Your task to perform on an android device: Search for Mexican restaurants on Maps Image 0: 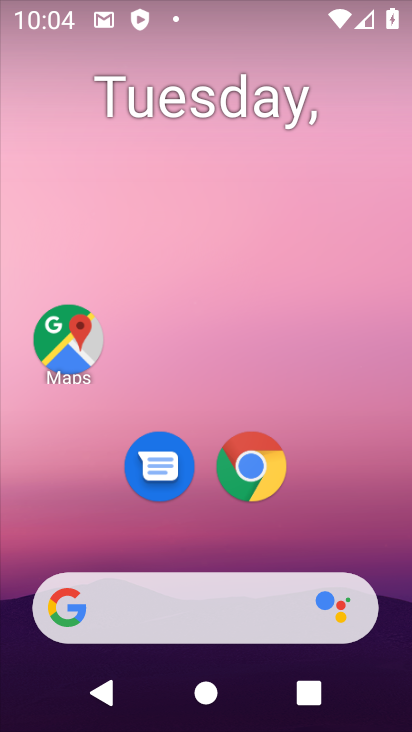
Step 0: drag from (245, 646) to (266, 111)
Your task to perform on an android device: Search for Mexican restaurants on Maps Image 1: 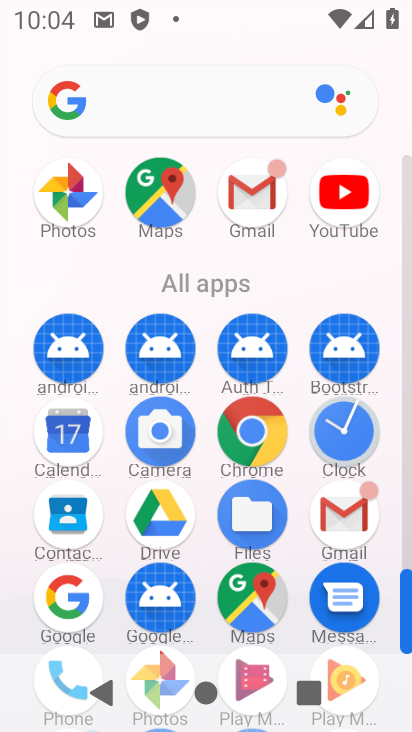
Step 1: click (228, 597)
Your task to perform on an android device: Search for Mexican restaurants on Maps Image 2: 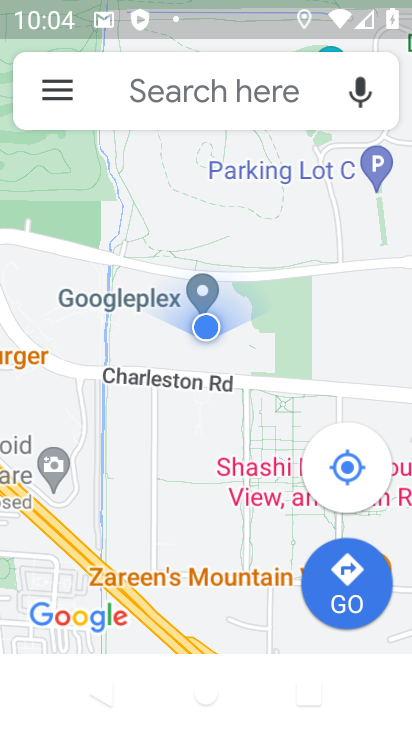
Step 2: click (164, 82)
Your task to perform on an android device: Search for Mexican restaurants on Maps Image 3: 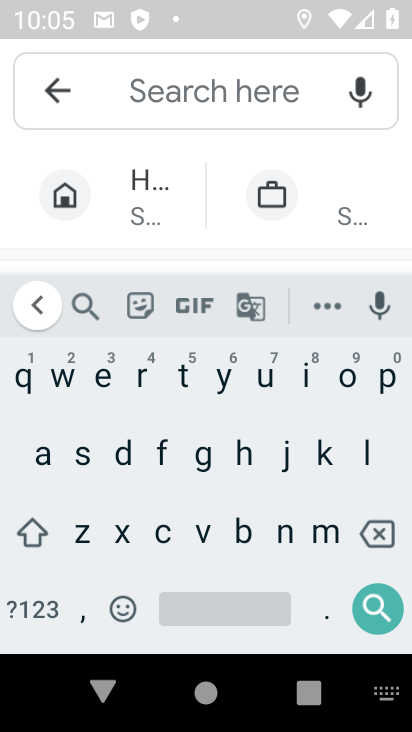
Step 3: click (323, 526)
Your task to perform on an android device: Search for Mexican restaurants on Maps Image 4: 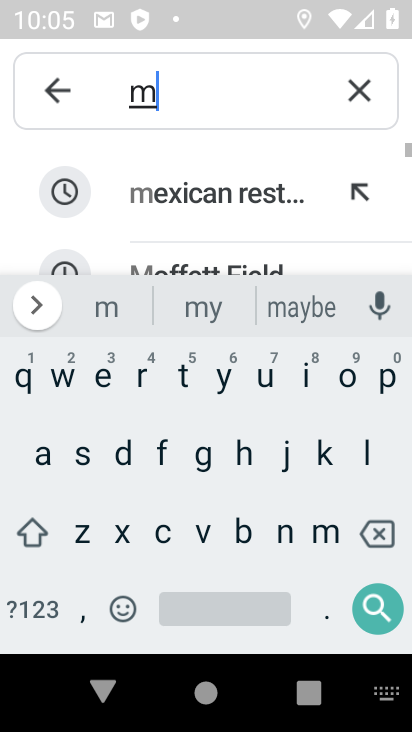
Step 4: click (221, 194)
Your task to perform on an android device: Search for Mexican restaurants on Maps Image 5: 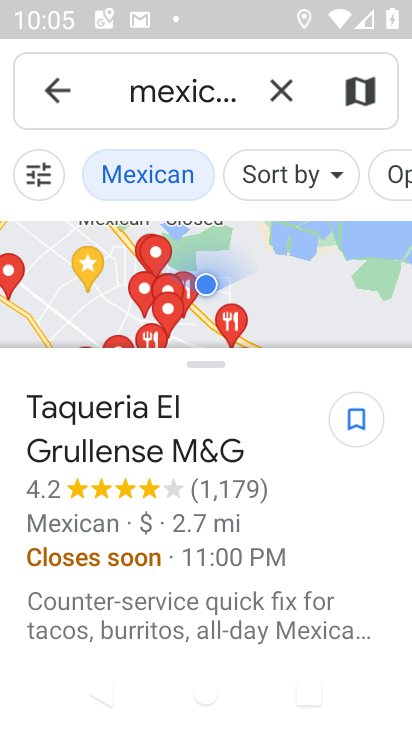
Step 5: click (94, 316)
Your task to perform on an android device: Search for Mexican restaurants on Maps Image 6: 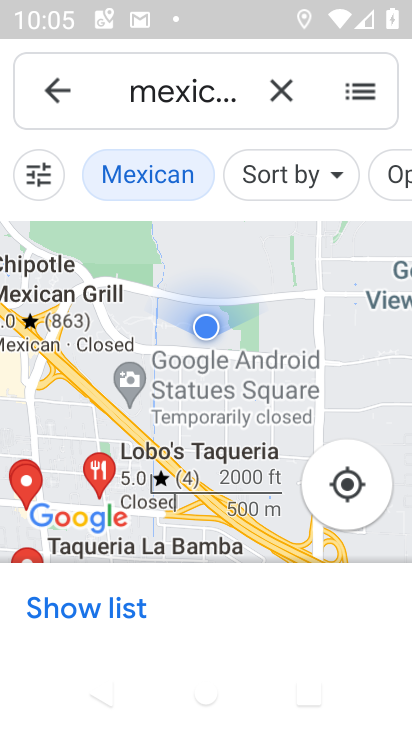
Step 6: task complete